Your task to perform on an android device: What's the weather going to be tomorrow? Image 0: 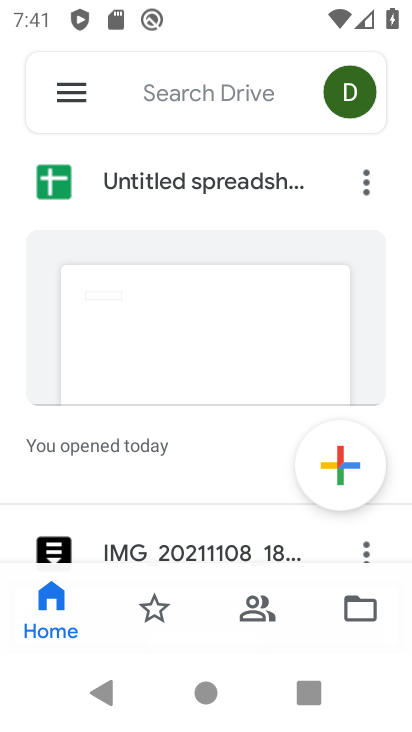
Step 0: press home button
Your task to perform on an android device: What's the weather going to be tomorrow? Image 1: 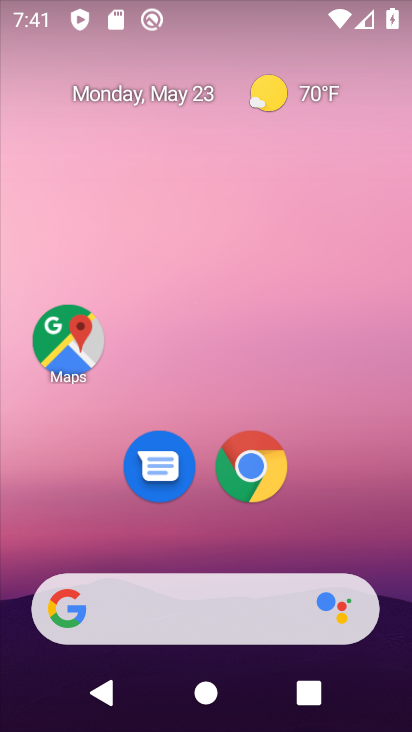
Step 1: drag from (153, 620) to (79, 18)
Your task to perform on an android device: What's the weather going to be tomorrow? Image 2: 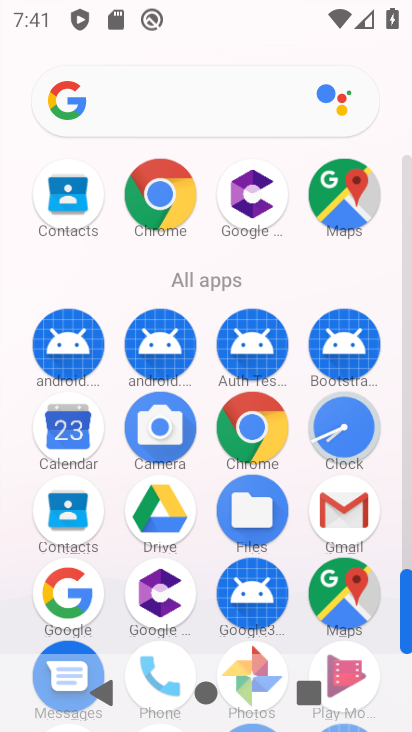
Step 2: click (72, 587)
Your task to perform on an android device: What's the weather going to be tomorrow? Image 3: 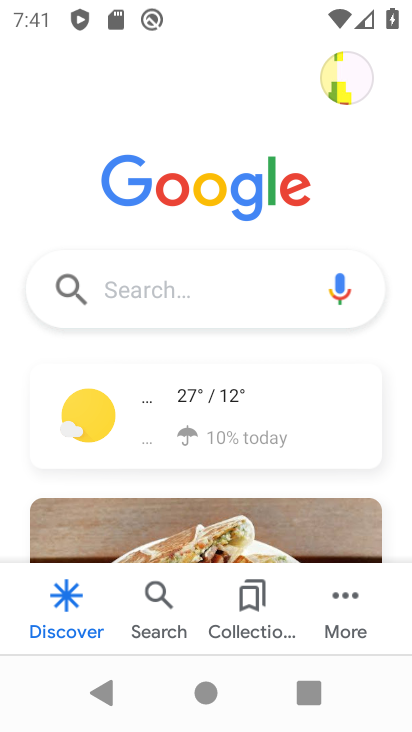
Step 3: click (173, 292)
Your task to perform on an android device: What's the weather going to be tomorrow? Image 4: 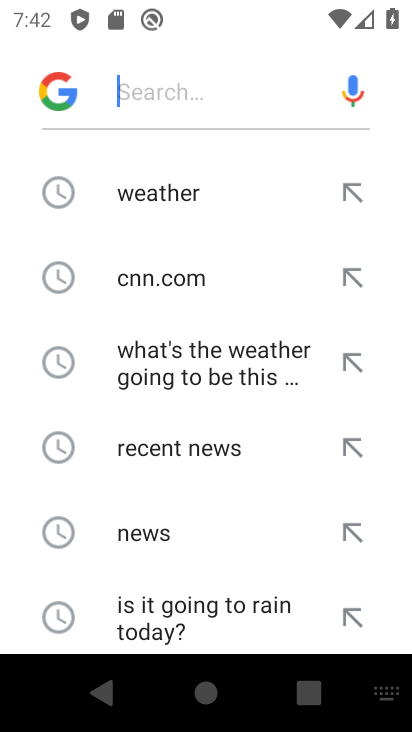
Step 4: click (252, 199)
Your task to perform on an android device: What's the weather going to be tomorrow? Image 5: 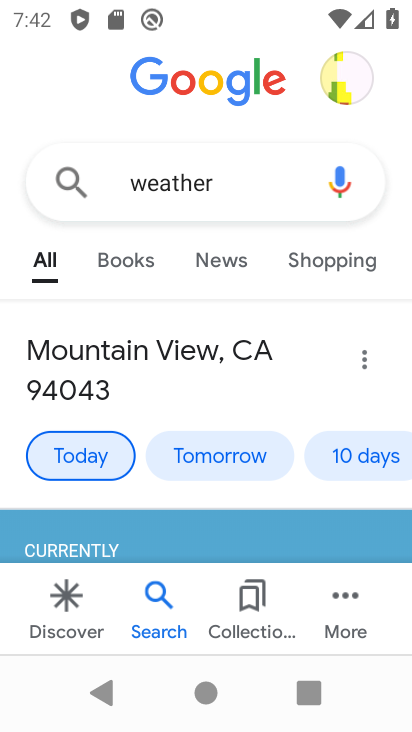
Step 5: click (210, 455)
Your task to perform on an android device: What's the weather going to be tomorrow? Image 6: 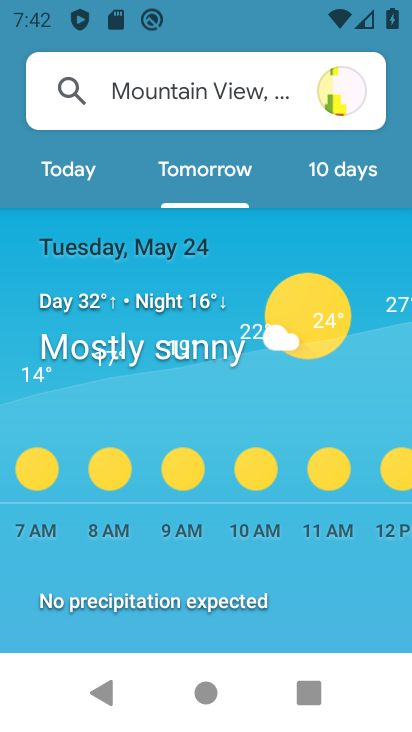
Step 6: task complete